Your task to perform on an android device: toggle airplane mode Image 0: 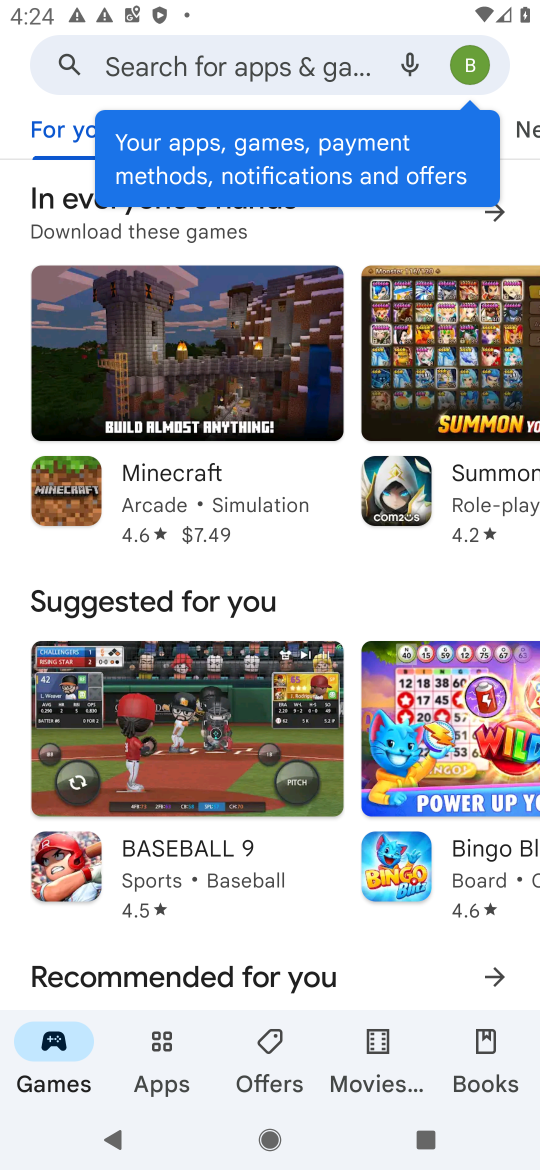
Step 0: press home button
Your task to perform on an android device: toggle airplane mode Image 1: 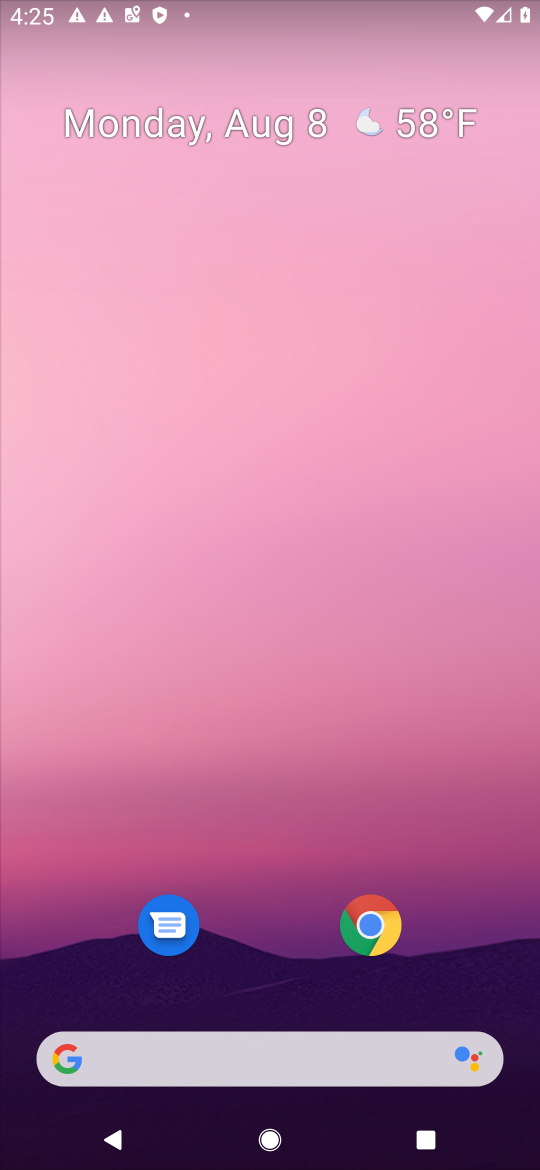
Step 1: drag from (257, 996) to (216, 111)
Your task to perform on an android device: toggle airplane mode Image 2: 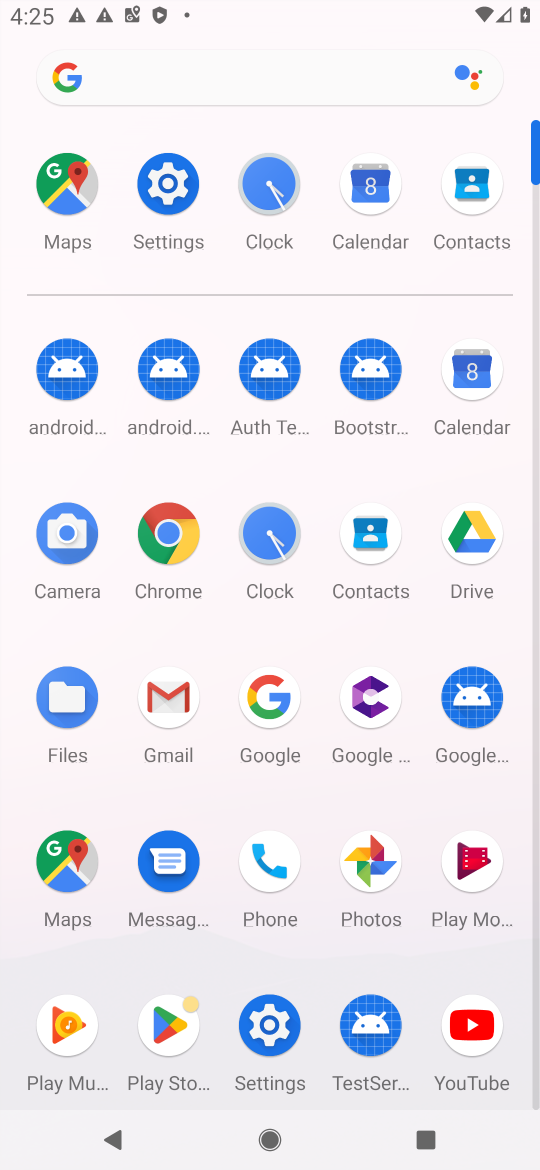
Step 2: click (156, 190)
Your task to perform on an android device: toggle airplane mode Image 3: 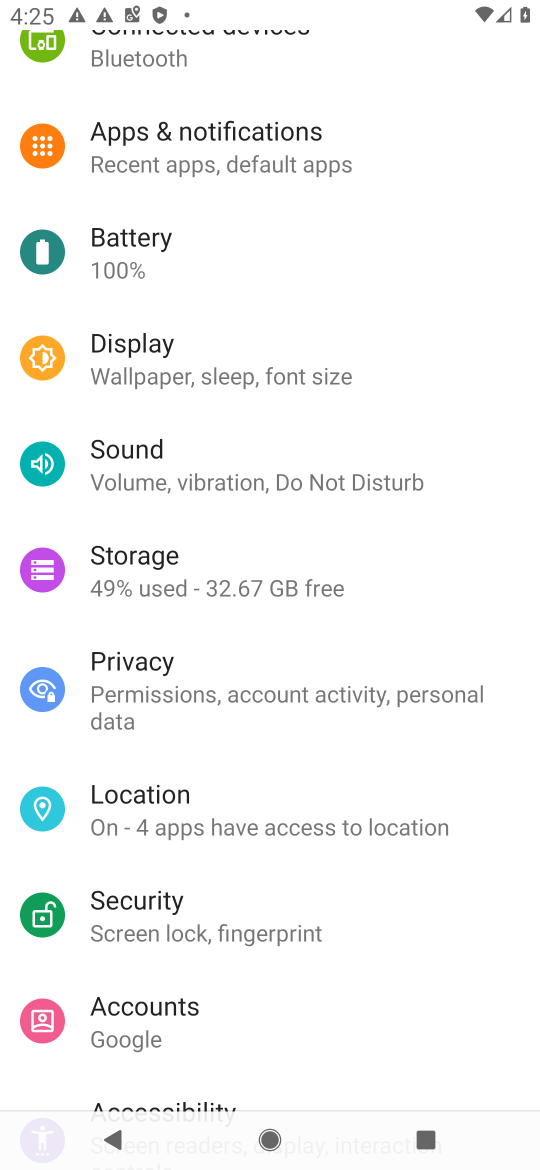
Step 3: drag from (173, 242) to (127, 715)
Your task to perform on an android device: toggle airplane mode Image 4: 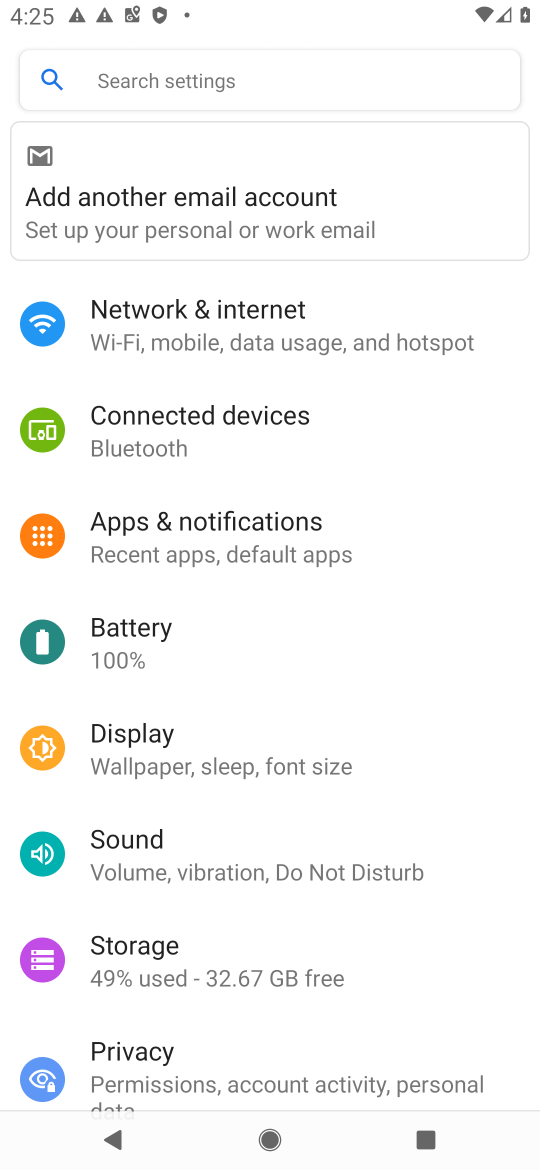
Step 4: click (165, 317)
Your task to perform on an android device: toggle airplane mode Image 5: 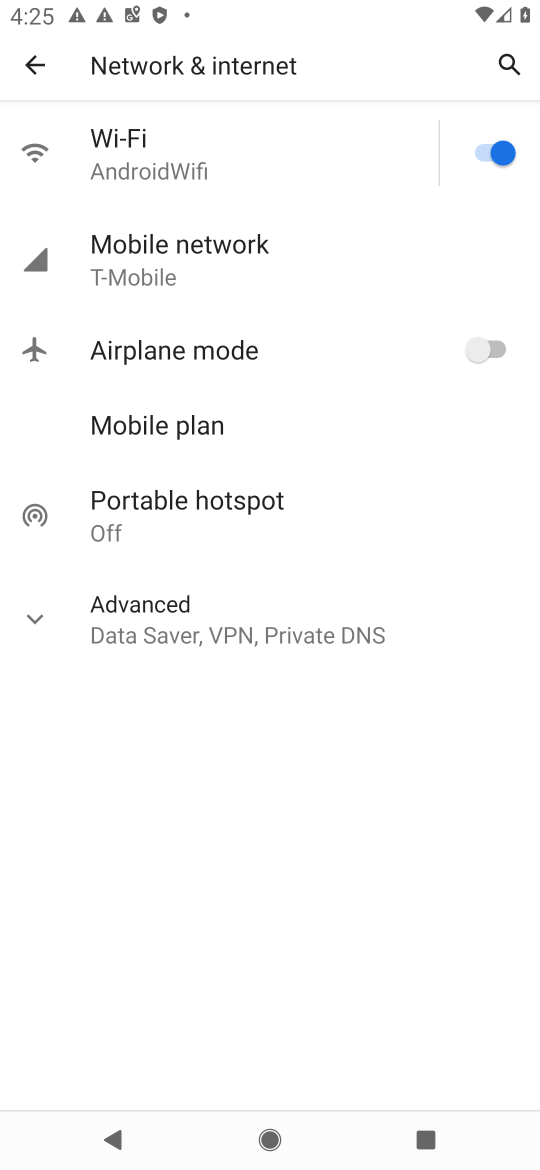
Step 5: click (483, 343)
Your task to perform on an android device: toggle airplane mode Image 6: 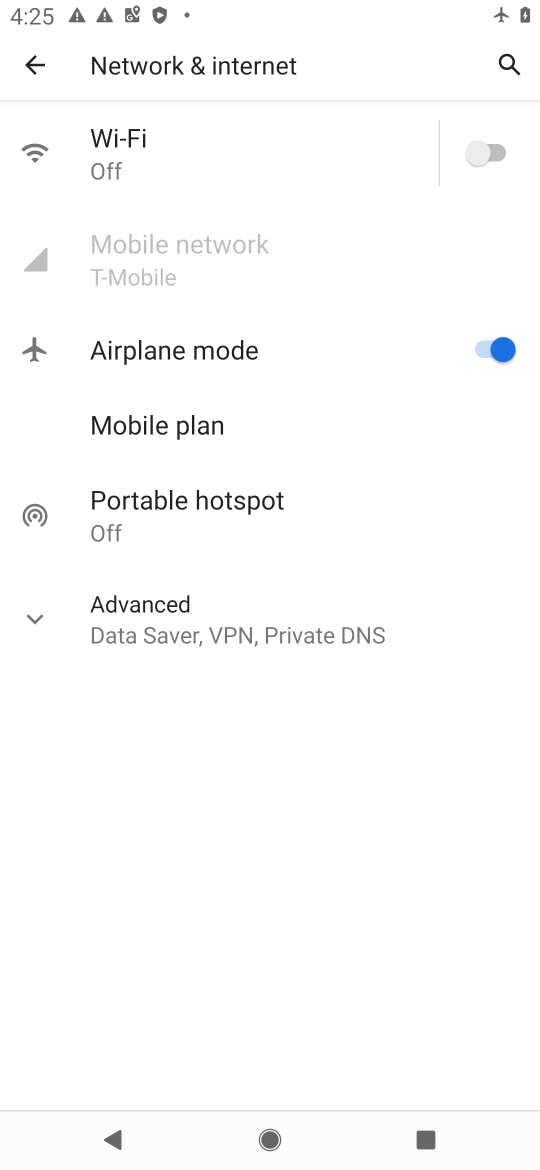
Step 6: task complete